Your task to perform on an android device: star an email in the gmail app Image 0: 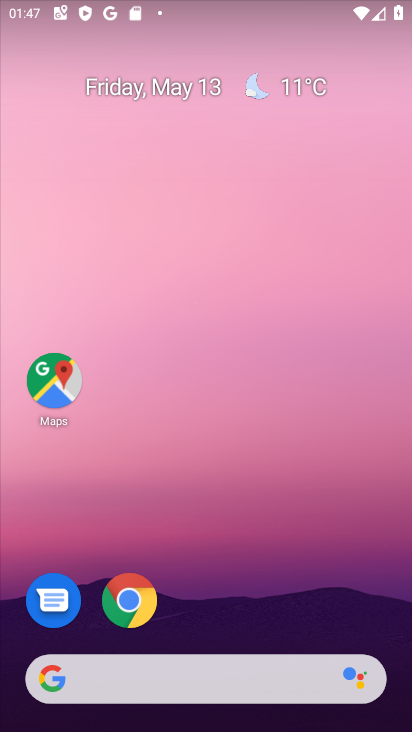
Step 0: drag from (249, 615) to (318, 302)
Your task to perform on an android device: star an email in the gmail app Image 1: 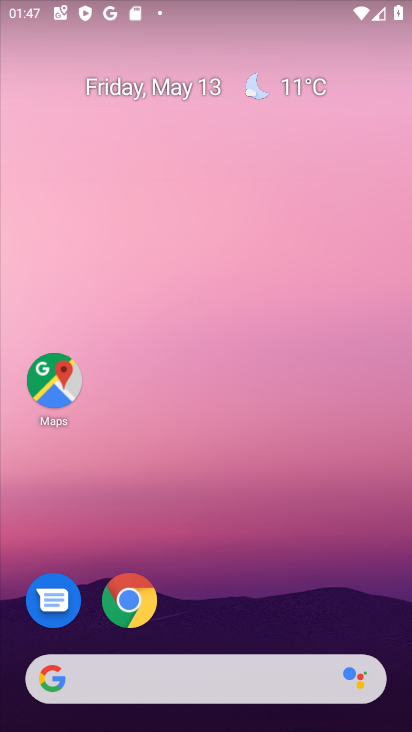
Step 1: drag from (195, 605) to (238, 78)
Your task to perform on an android device: star an email in the gmail app Image 2: 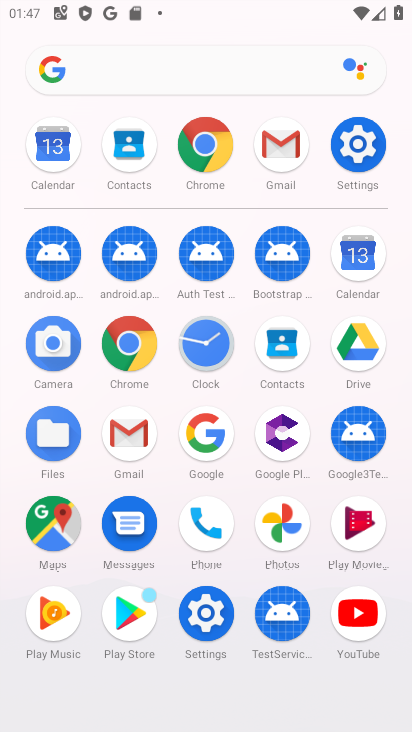
Step 2: click (114, 423)
Your task to perform on an android device: star an email in the gmail app Image 3: 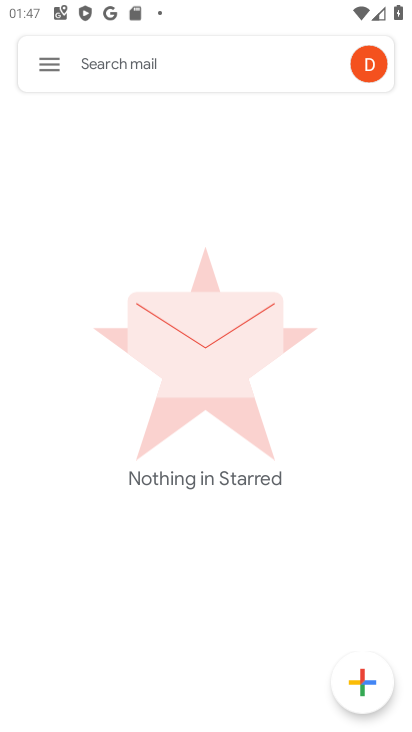
Step 3: click (50, 62)
Your task to perform on an android device: star an email in the gmail app Image 4: 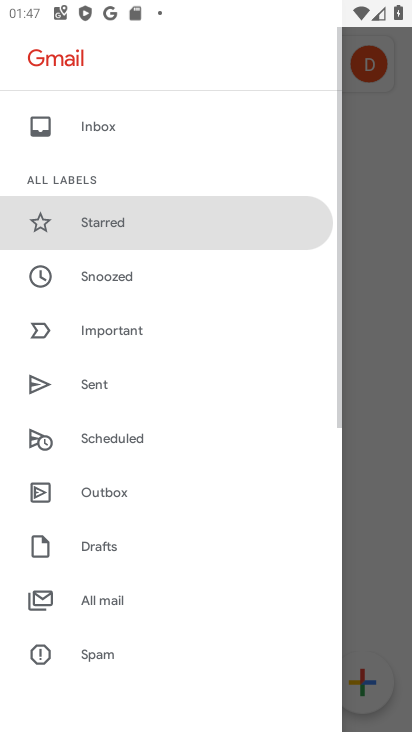
Step 4: click (85, 217)
Your task to perform on an android device: star an email in the gmail app Image 5: 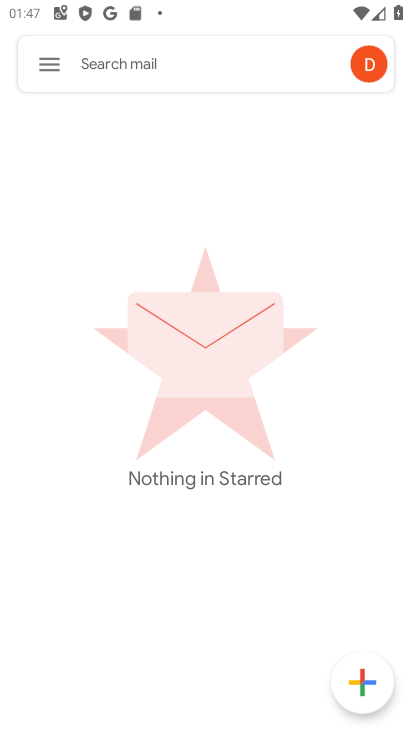
Step 5: task complete